Your task to perform on an android device: change the upload size in google photos Image 0: 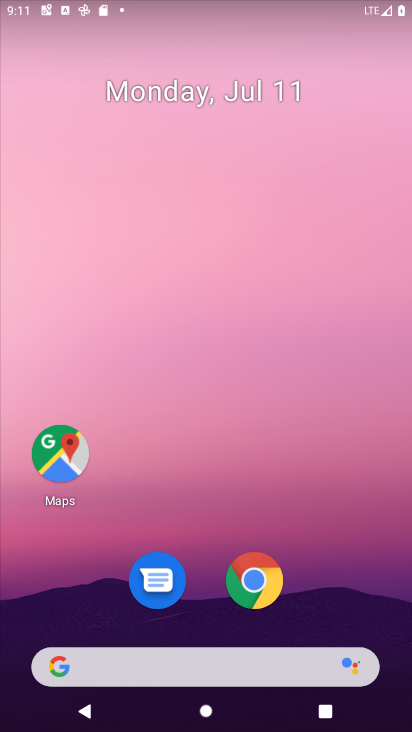
Step 0: drag from (260, 535) to (221, 41)
Your task to perform on an android device: change the upload size in google photos Image 1: 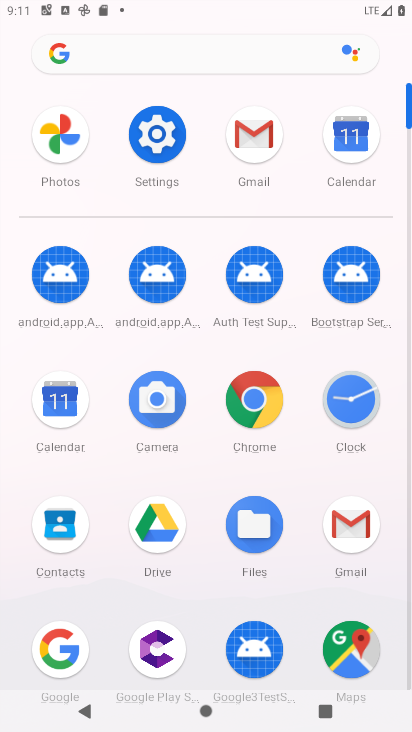
Step 1: click (51, 134)
Your task to perform on an android device: change the upload size in google photos Image 2: 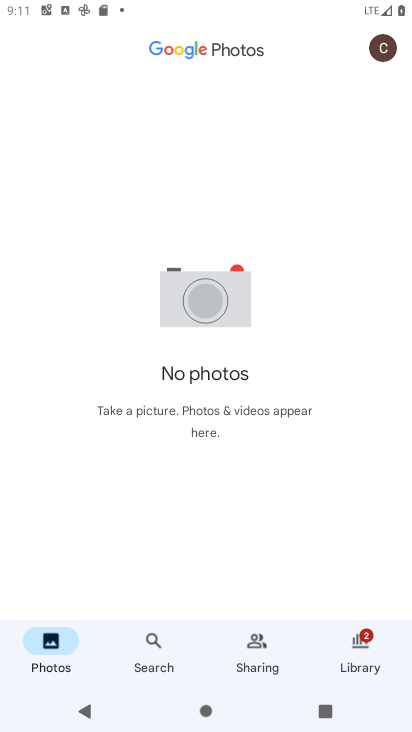
Step 2: click (389, 47)
Your task to perform on an android device: change the upload size in google photos Image 3: 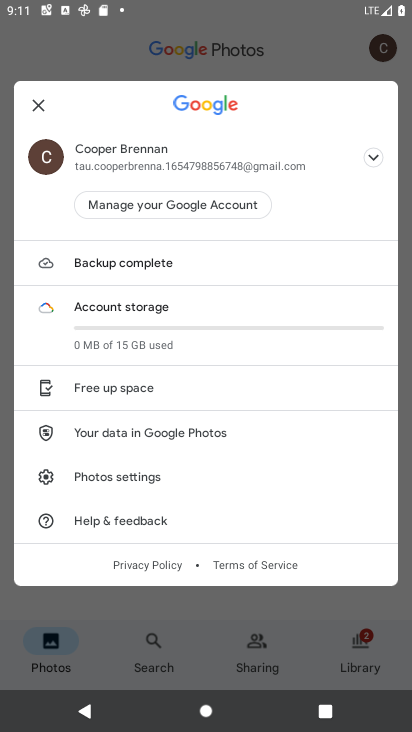
Step 3: click (168, 146)
Your task to perform on an android device: change the upload size in google photos Image 4: 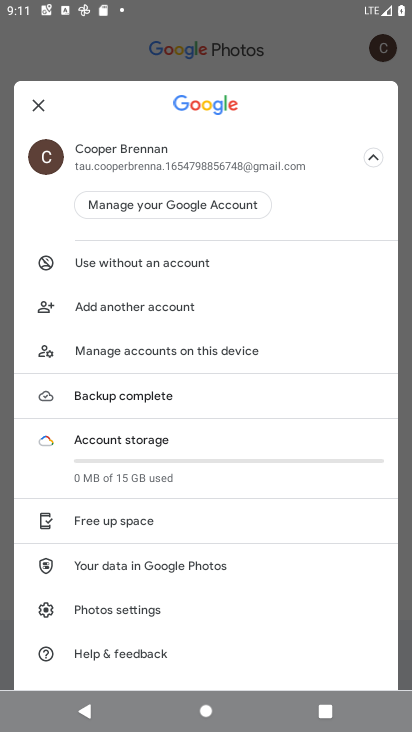
Step 4: click (165, 152)
Your task to perform on an android device: change the upload size in google photos Image 5: 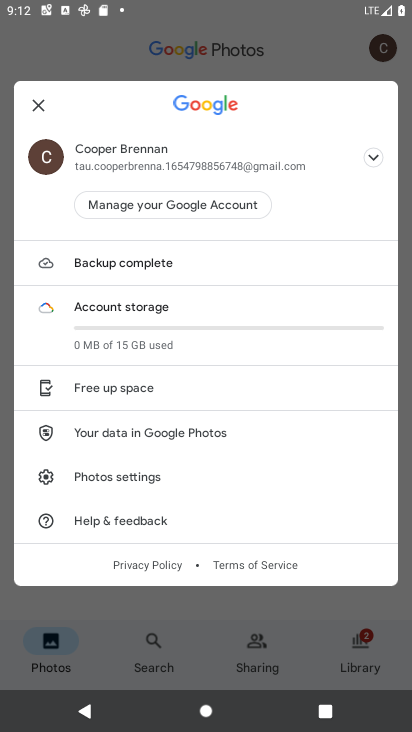
Step 5: click (165, 153)
Your task to perform on an android device: change the upload size in google photos Image 6: 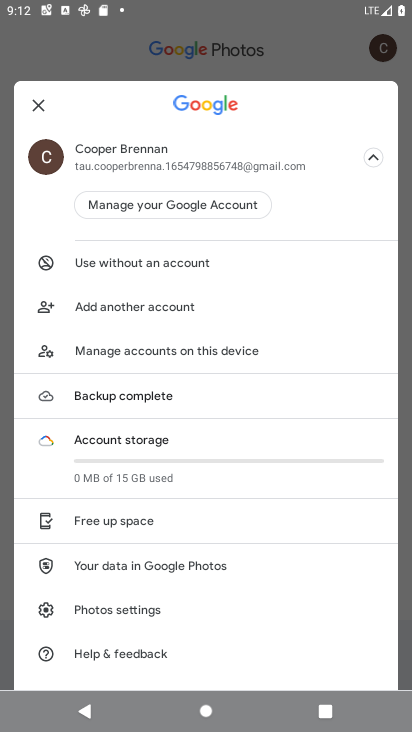
Step 6: click (115, 606)
Your task to perform on an android device: change the upload size in google photos Image 7: 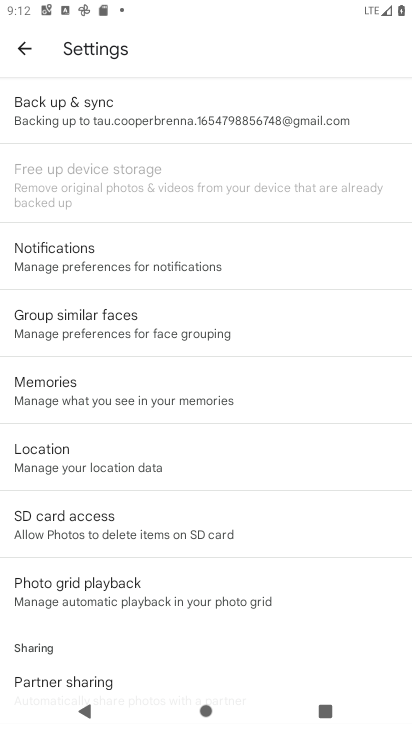
Step 7: click (195, 108)
Your task to perform on an android device: change the upload size in google photos Image 8: 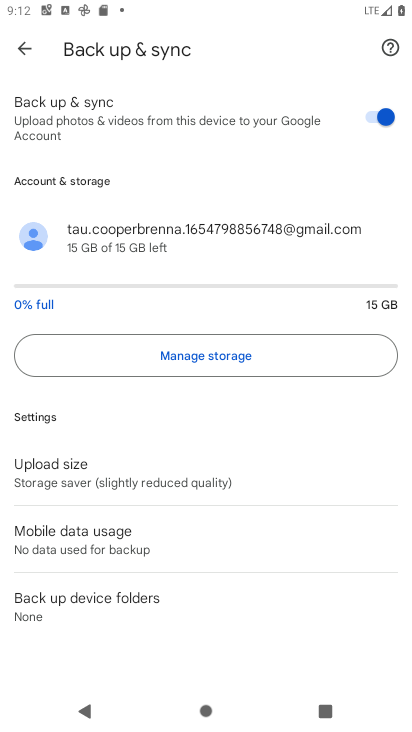
Step 8: click (132, 471)
Your task to perform on an android device: change the upload size in google photos Image 9: 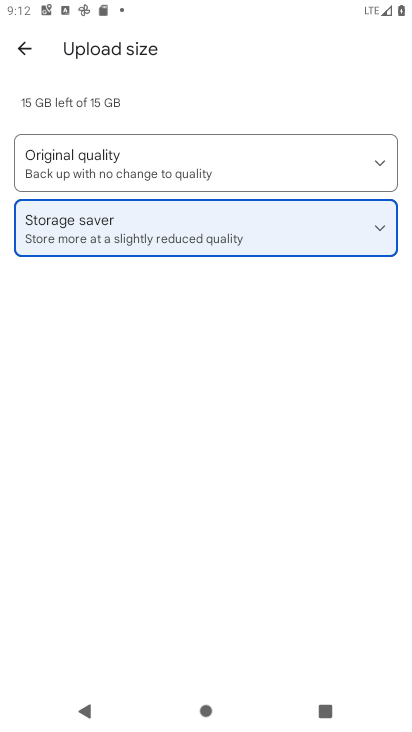
Step 9: click (227, 167)
Your task to perform on an android device: change the upload size in google photos Image 10: 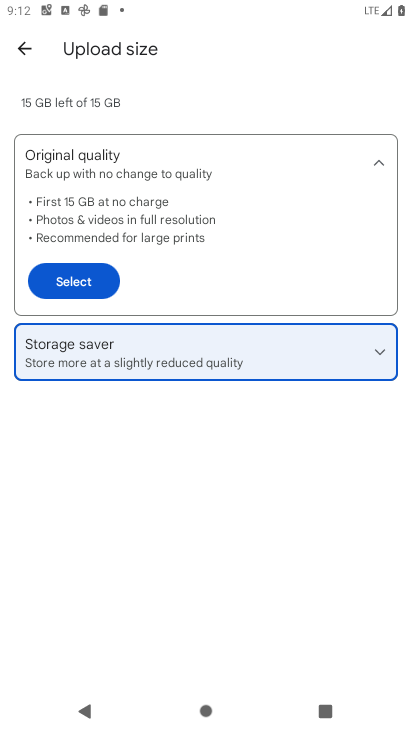
Step 10: click (96, 284)
Your task to perform on an android device: change the upload size in google photos Image 11: 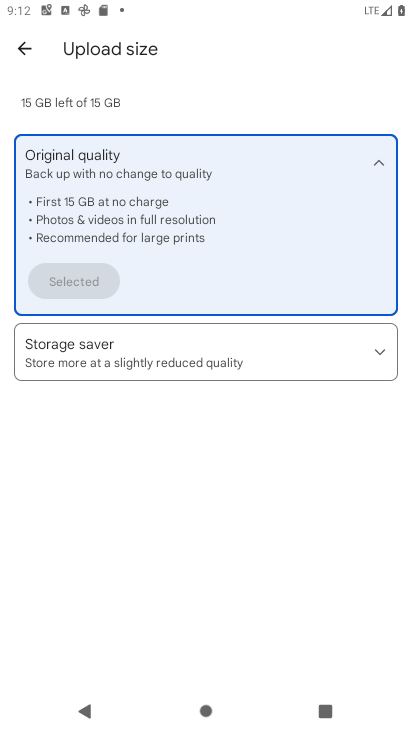
Step 11: task complete